Your task to perform on an android device: What's on my calendar today? Image 0: 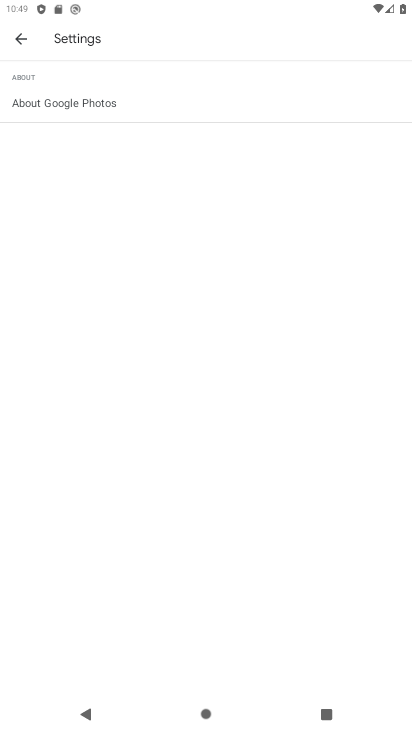
Step 0: press home button
Your task to perform on an android device: What's on my calendar today? Image 1: 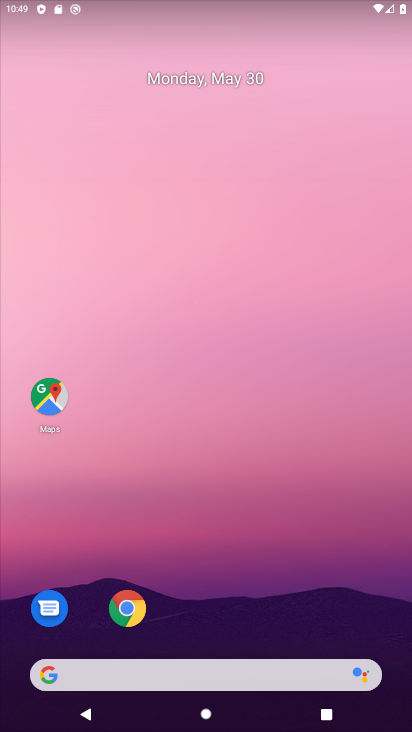
Step 1: drag from (308, 657) to (346, 16)
Your task to perform on an android device: What's on my calendar today? Image 2: 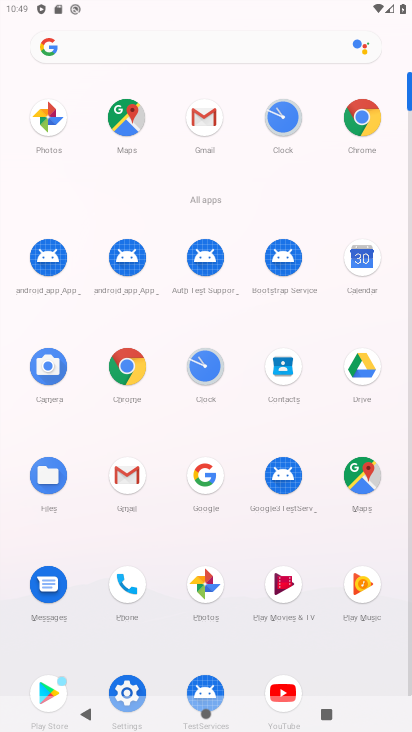
Step 2: click (363, 255)
Your task to perform on an android device: What's on my calendar today? Image 3: 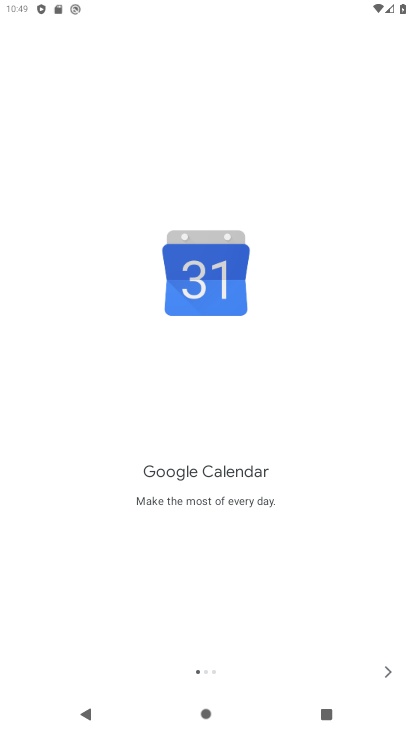
Step 3: click (384, 673)
Your task to perform on an android device: What's on my calendar today? Image 4: 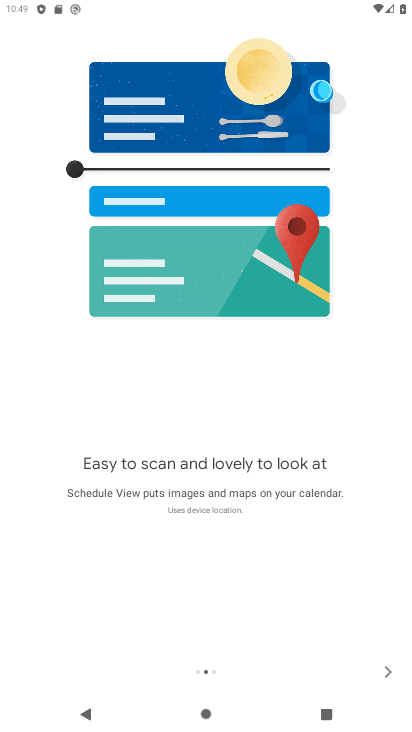
Step 4: click (384, 673)
Your task to perform on an android device: What's on my calendar today? Image 5: 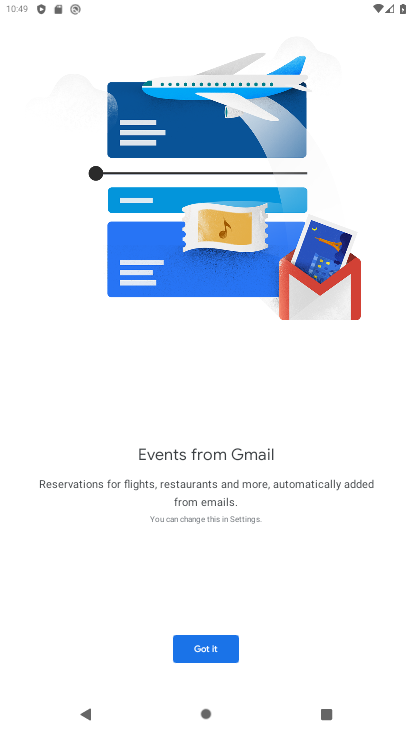
Step 5: click (202, 649)
Your task to perform on an android device: What's on my calendar today? Image 6: 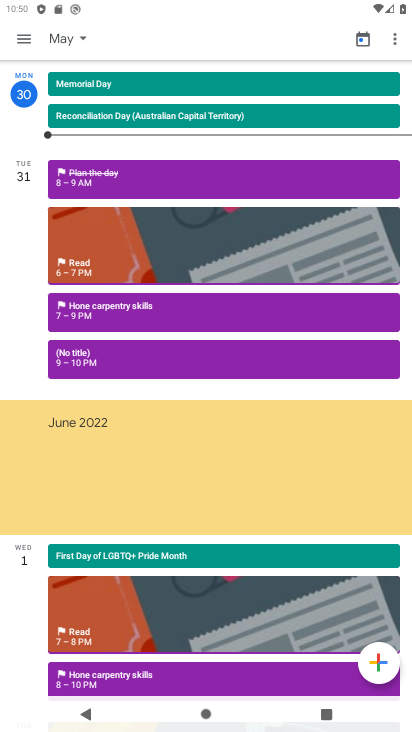
Step 6: click (25, 38)
Your task to perform on an android device: What's on my calendar today? Image 7: 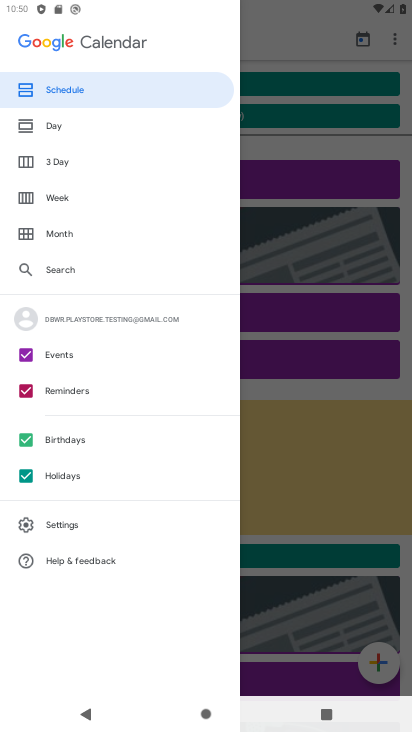
Step 7: click (43, 128)
Your task to perform on an android device: What's on my calendar today? Image 8: 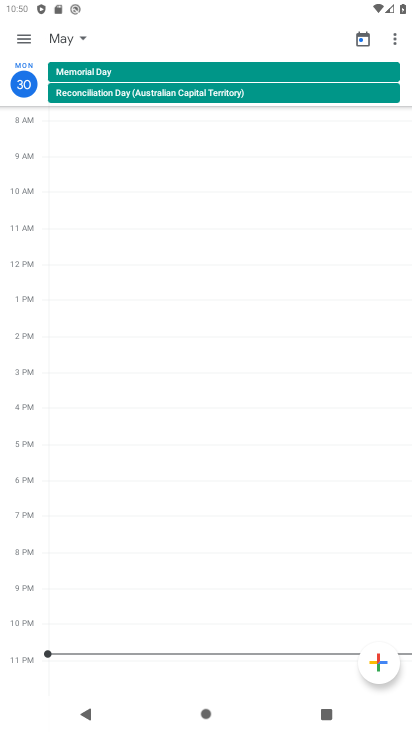
Step 8: task complete